Your task to perform on an android device: Open Chrome and go to settings Image 0: 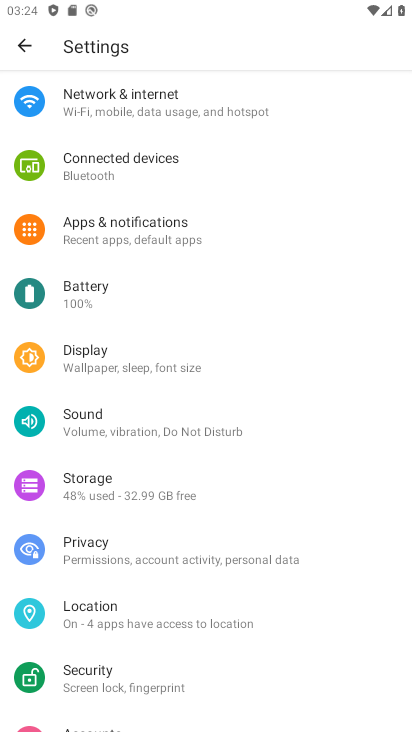
Step 0: press home button
Your task to perform on an android device: Open Chrome and go to settings Image 1: 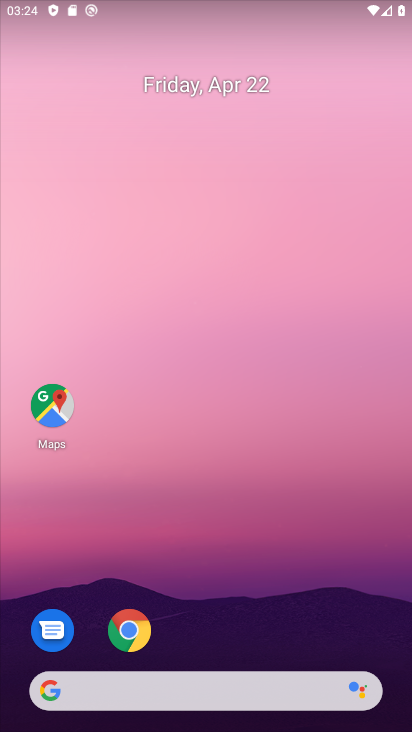
Step 1: click (140, 631)
Your task to perform on an android device: Open Chrome and go to settings Image 2: 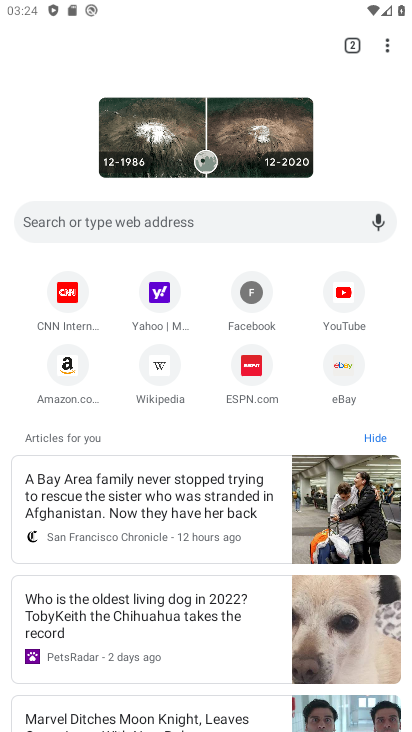
Step 2: click (386, 46)
Your task to perform on an android device: Open Chrome and go to settings Image 3: 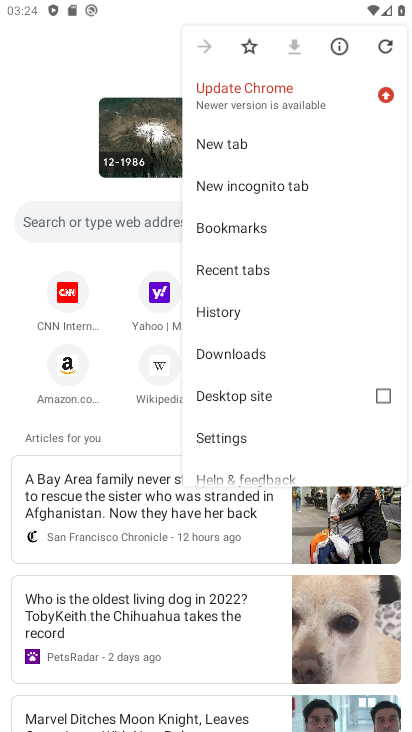
Step 3: click (224, 439)
Your task to perform on an android device: Open Chrome and go to settings Image 4: 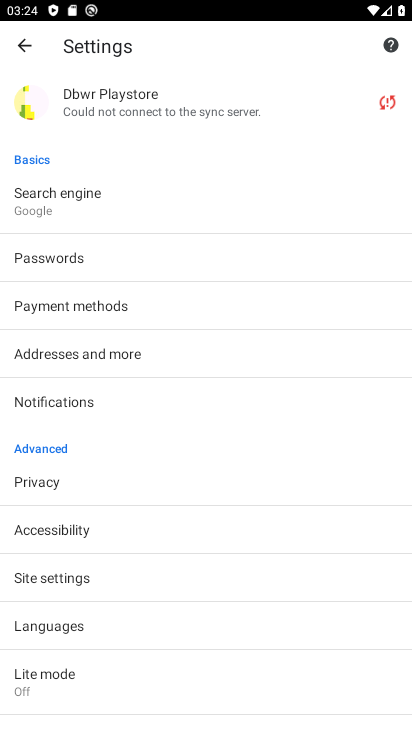
Step 4: task complete